Your task to perform on an android device: Add "asus zenbook" to the cart on walmart Image 0: 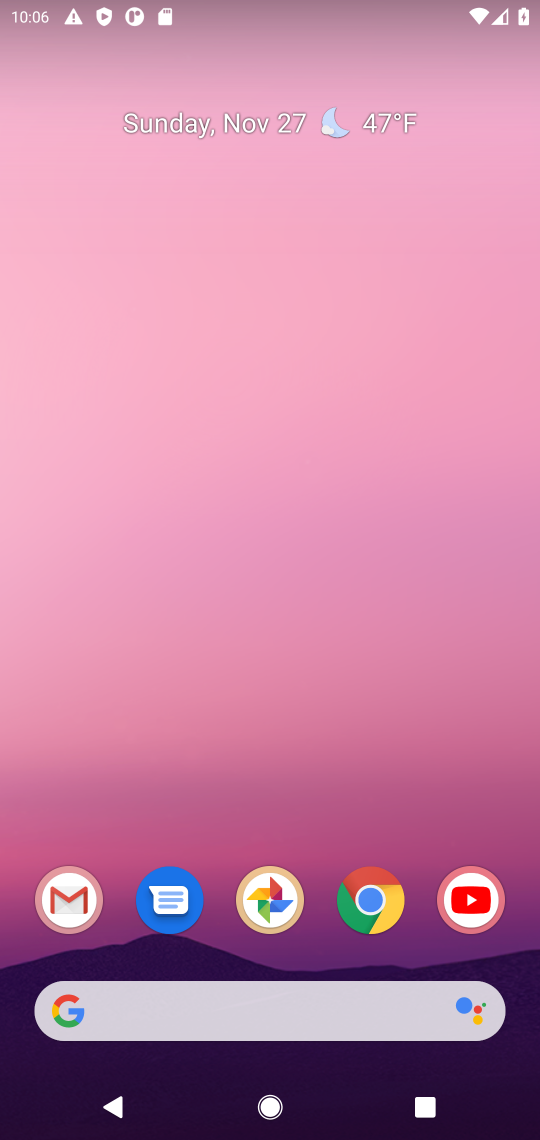
Step 0: click (364, 889)
Your task to perform on an android device: Add "asus zenbook" to the cart on walmart Image 1: 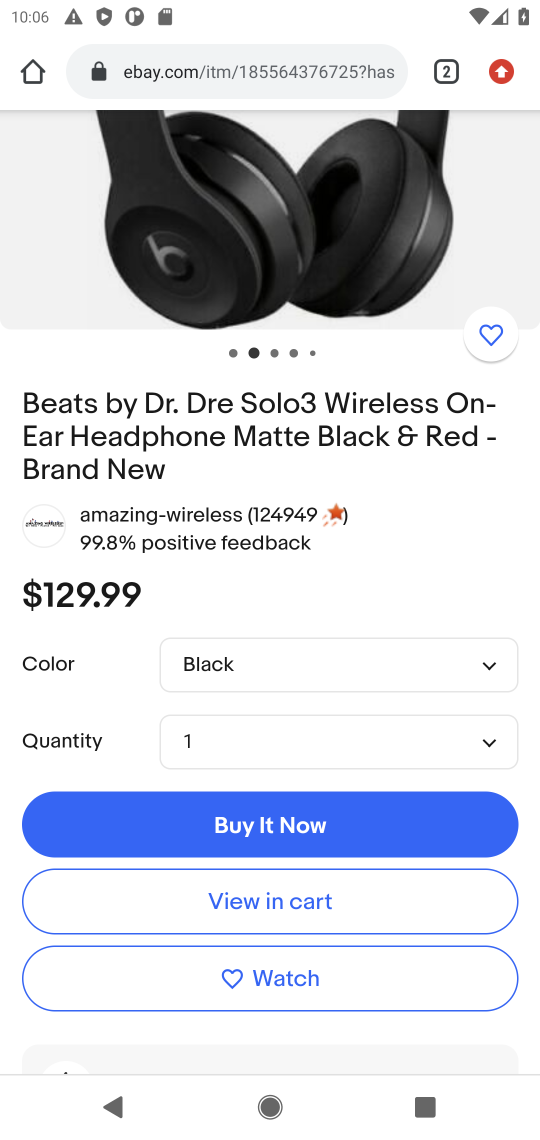
Step 1: click (203, 85)
Your task to perform on an android device: Add "asus zenbook" to the cart on walmart Image 2: 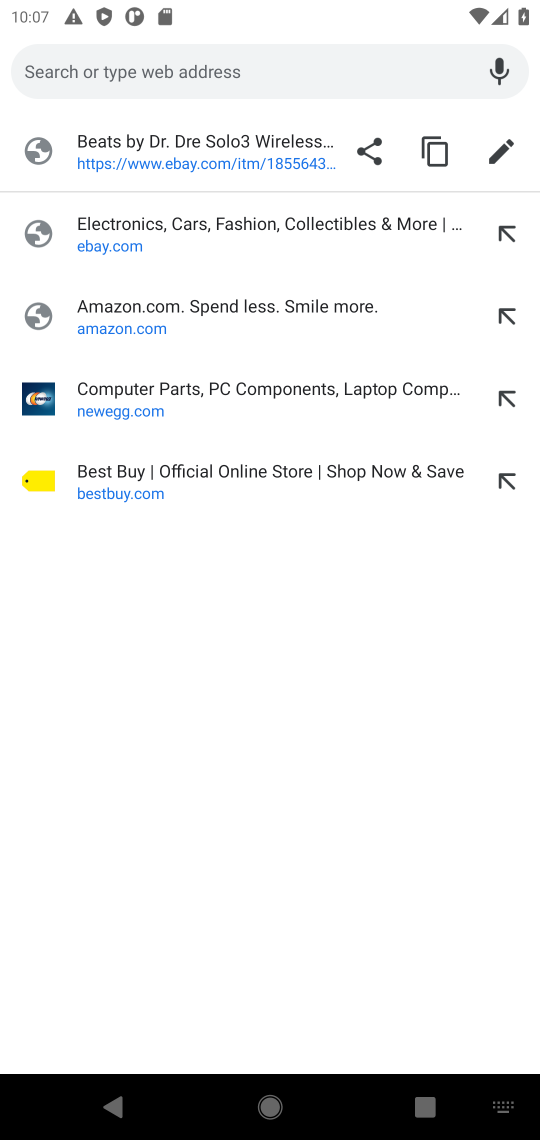
Step 2: type "walmart.com"
Your task to perform on an android device: Add "asus zenbook" to the cart on walmart Image 3: 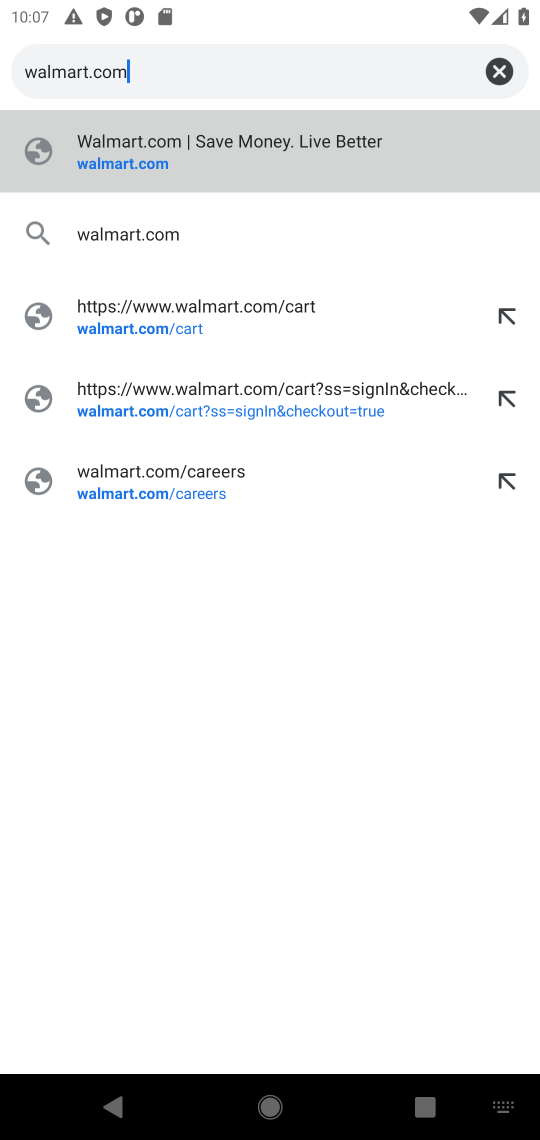
Step 3: click (125, 158)
Your task to perform on an android device: Add "asus zenbook" to the cart on walmart Image 4: 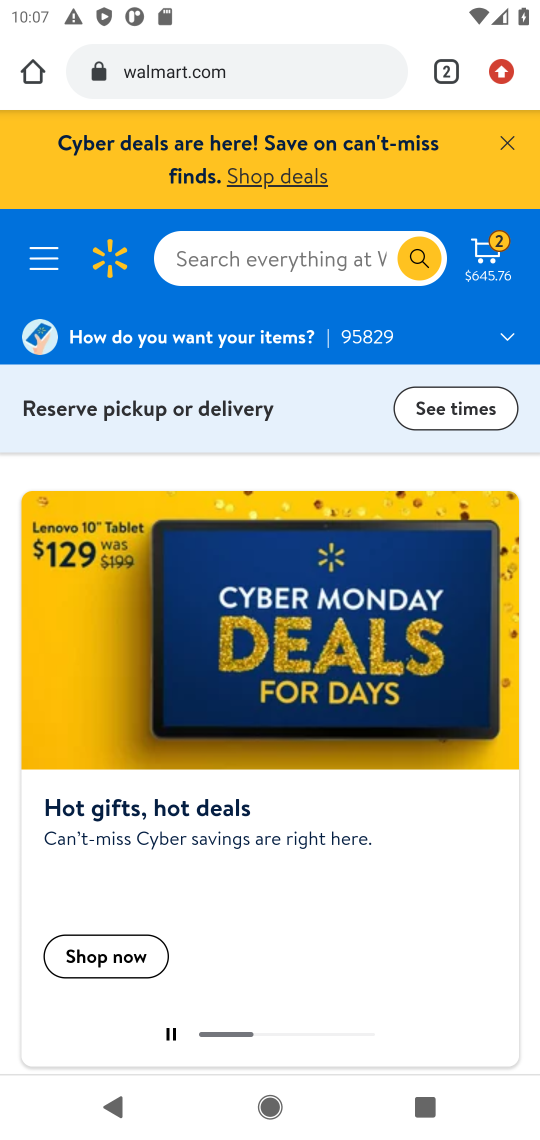
Step 4: click (231, 266)
Your task to perform on an android device: Add "asus zenbook" to the cart on walmart Image 5: 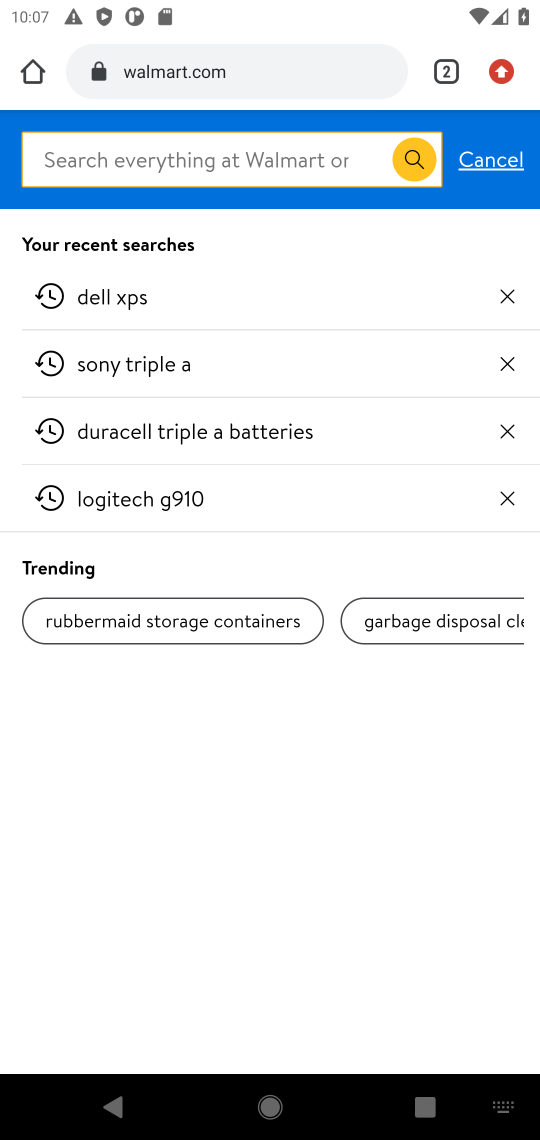
Step 5: type "asus zenbook"
Your task to perform on an android device: Add "asus zenbook" to the cart on walmart Image 6: 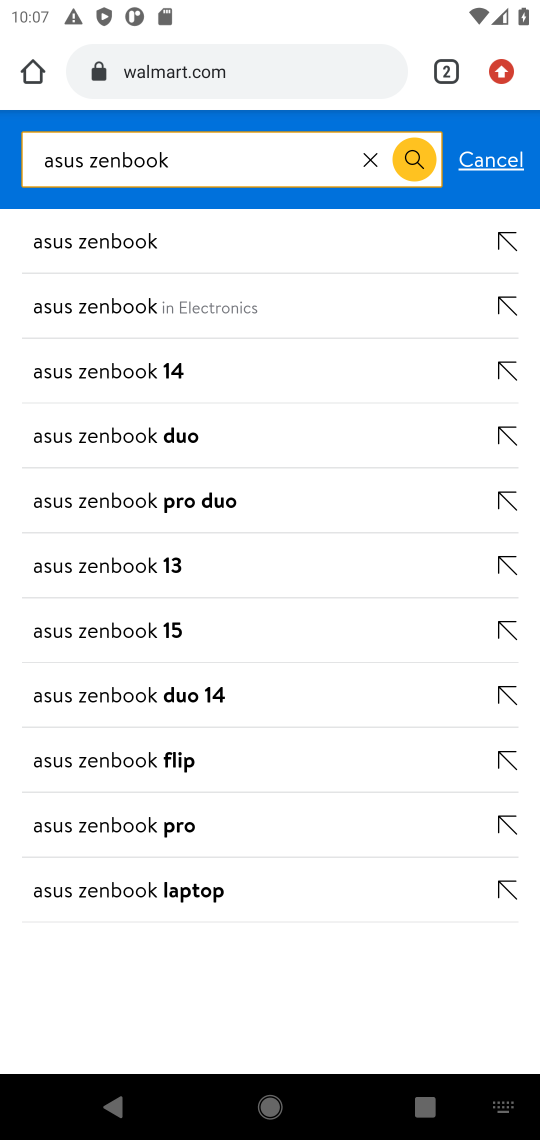
Step 6: click (86, 242)
Your task to perform on an android device: Add "asus zenbook" to the cart on walmart Image 7: 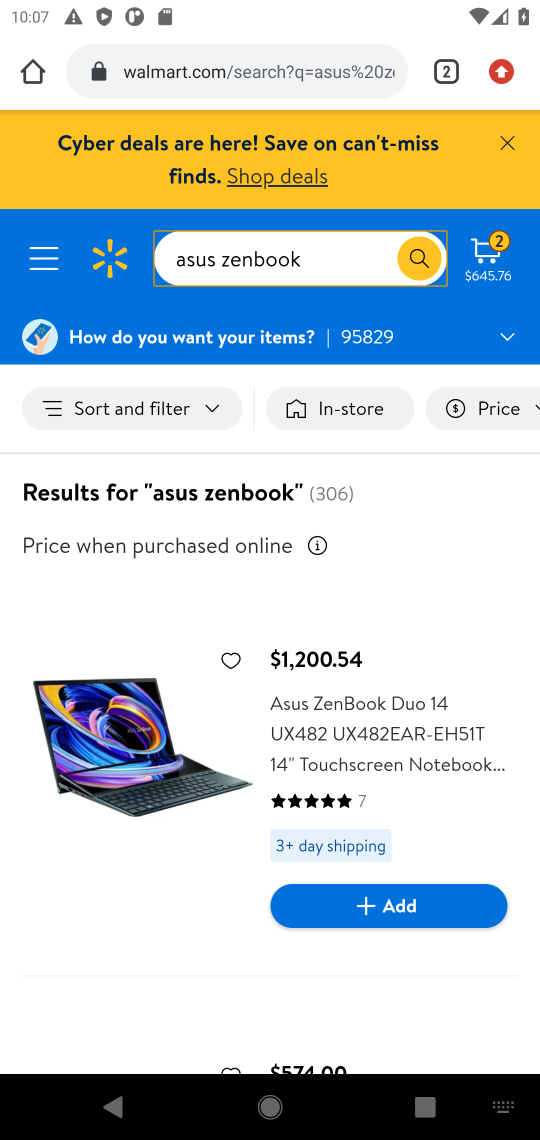
Step 7: click (392, 912)
Your task to perform on an android device: Add "asus zenbook" to the cart on walmart Image 8: 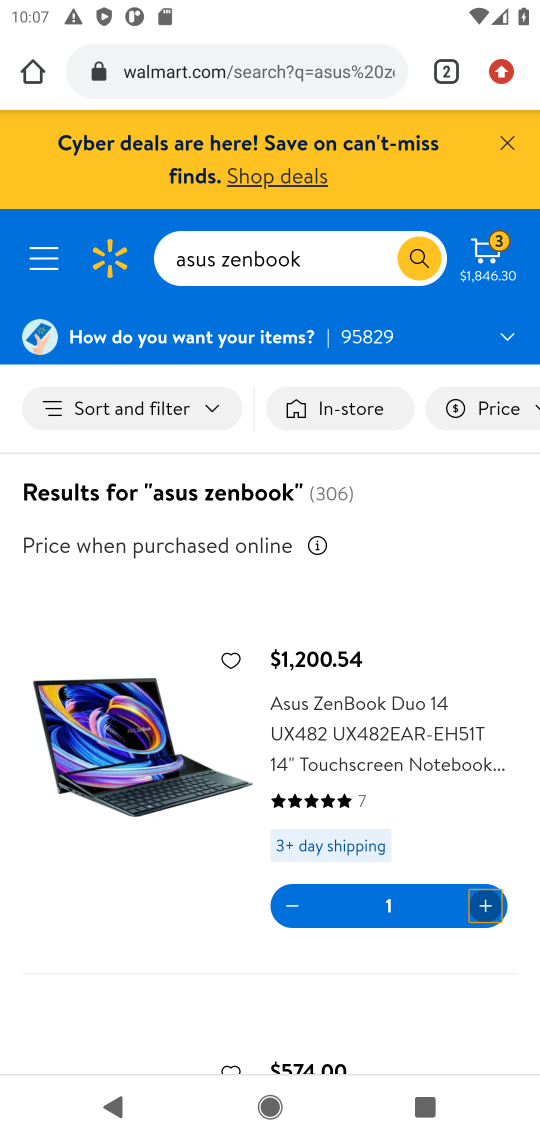
Step 8: task complete